Your task to perform on an android device: Go to Yahoo.com Image 0: 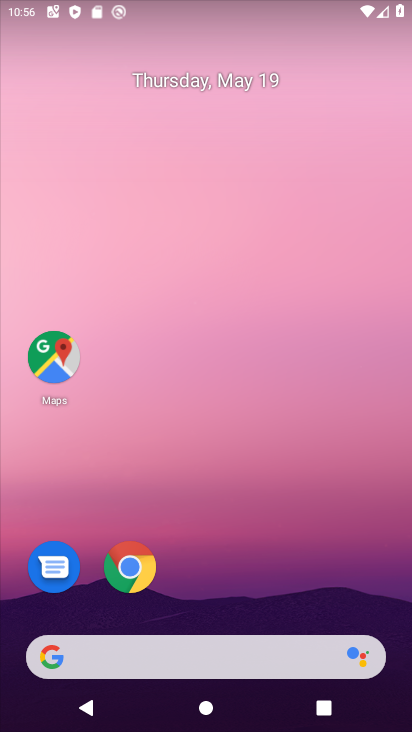
Step 0: click (134, 563)
Your task to perform on an android device: Go to Yahoo.com Image 1: 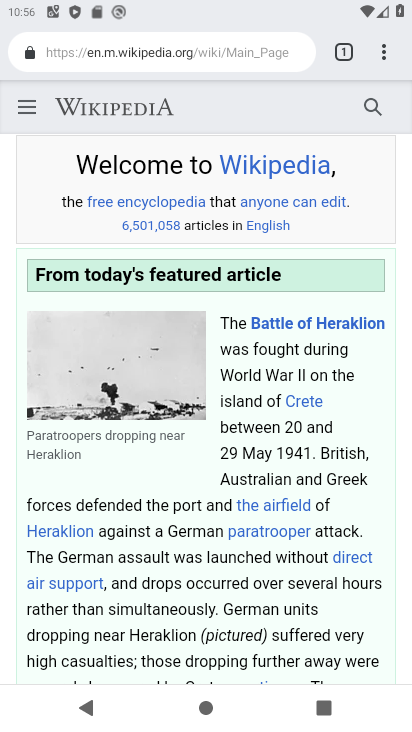
Step 1: click (222, 46)
Your task to perform on an android device: Go to Yahoo.com Image 2: 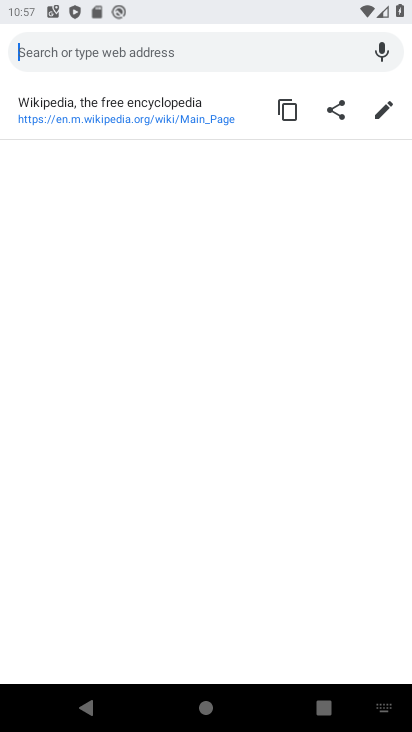
Step 2: type "yahoo.com"
Your task to perform on an android device: Go to Yahoo.com Image 3: 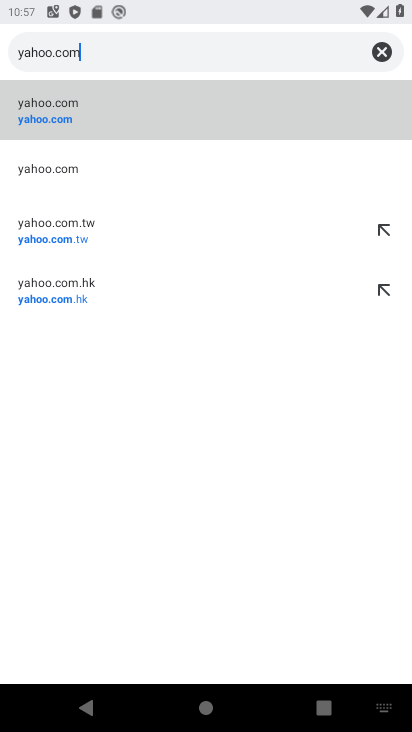
Step 3: click (56, 117)
Your task to perform on an android device: Go to Yahoo.com Image 4: 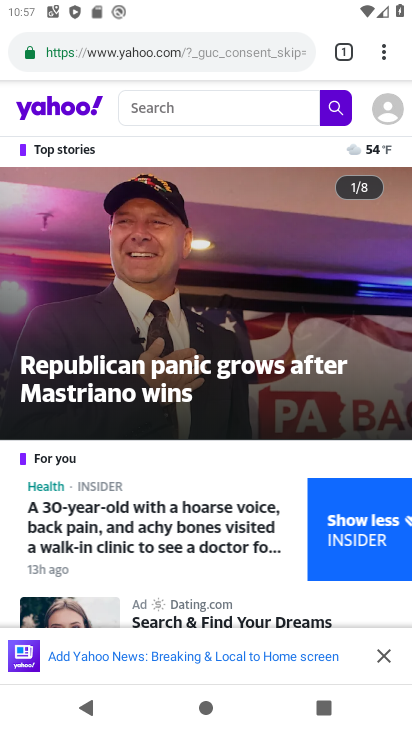
Step 4: task complete